Your task to perform on an android device: turn off translation in the chrome app Image 0: 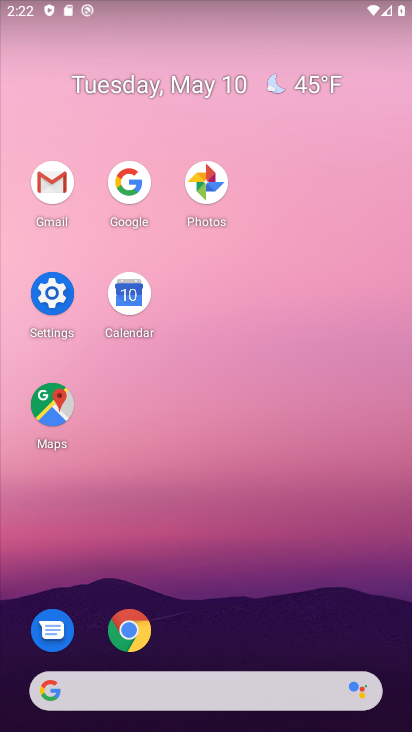
Step 0: click (121, 641)
Your task to perform on an android device: turn off translation in the chrome app Image 1: 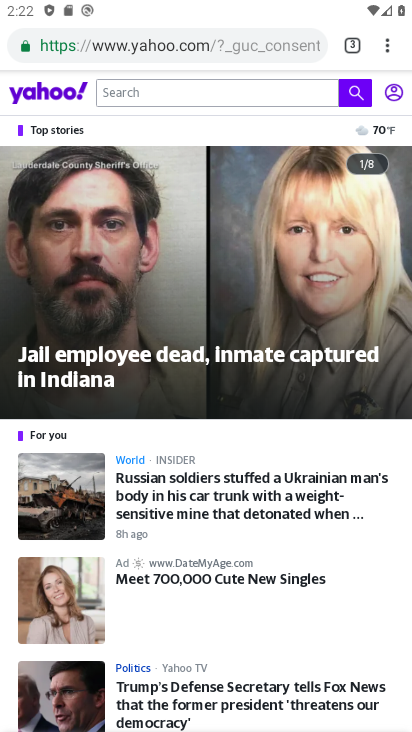
Step 1: click (387, 48)
Your task to perform on an android device: turn off translation in the chrome app Image 2: 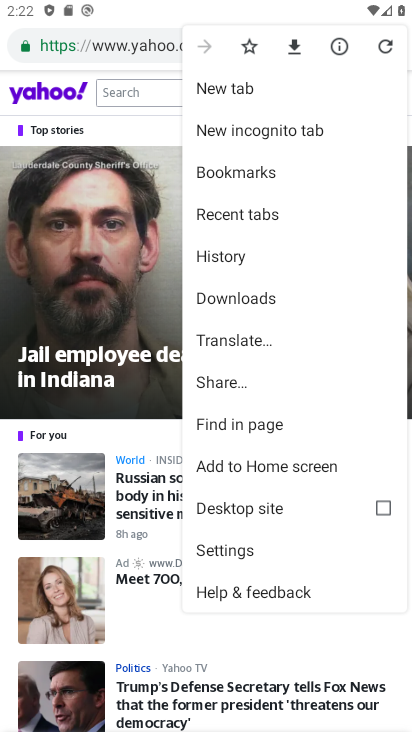
Step 2: click (257, 553)
Your task to perform on an android device: turn off translation in the chrome app Image 3: 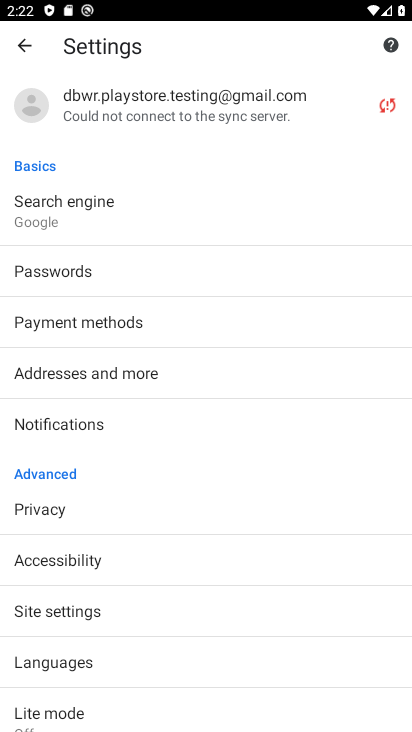
Step 3: click (106, 658)
Your task to perform on an android device: turn off translation in the chrome app Image 4: 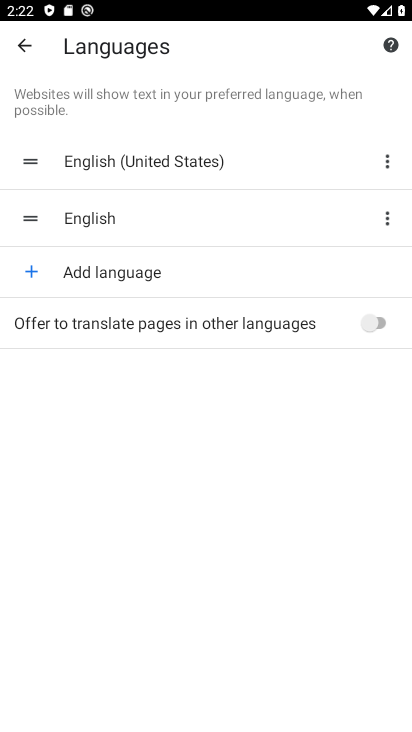
Step 4: task complete